Your task to perform on an android device: What's the weather going to be tomorrow? Image 0: 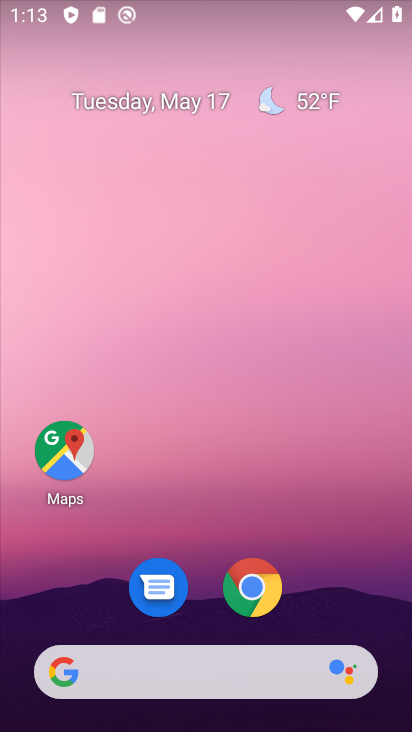
Step 0: click (204, 688)
Your task to perform on an android device: What's the weather going to be tomorrow? Image 1: 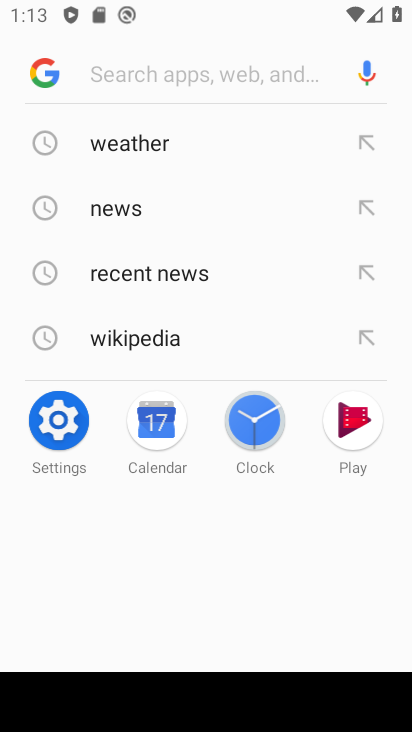
Step 1: click (108, 159)
Your task to perform on an android device: What's the weather going to be tomorrow? Image 2: 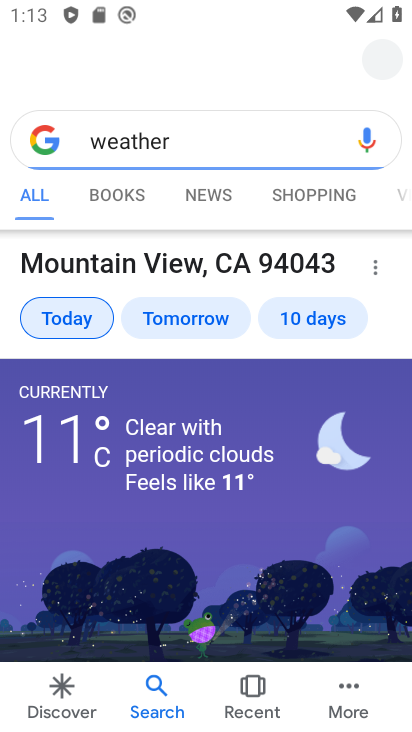
Step 2: task complete